Your task to perform on an android device: Open the web browser Image 0: 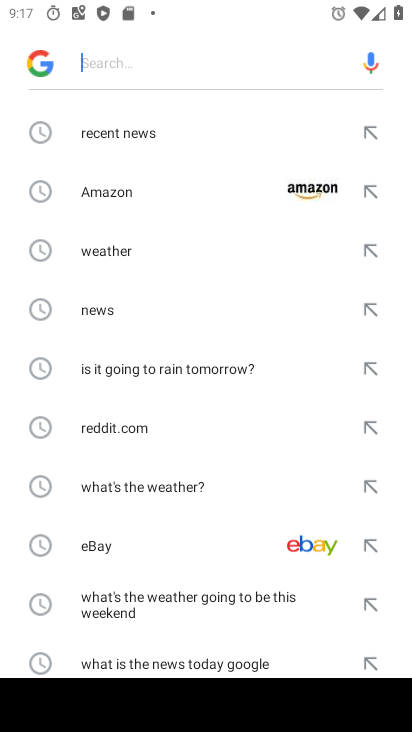
Step 0: press home button
Your task to perform on an android device: Open the web browser Image 1: 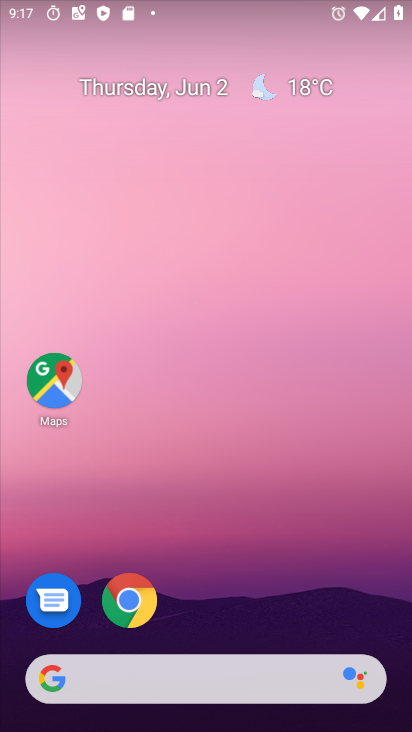
Step 1: drag from (340, 611) to (333, 131)
Your task to perform on an android device: Open the web browser Image 2: 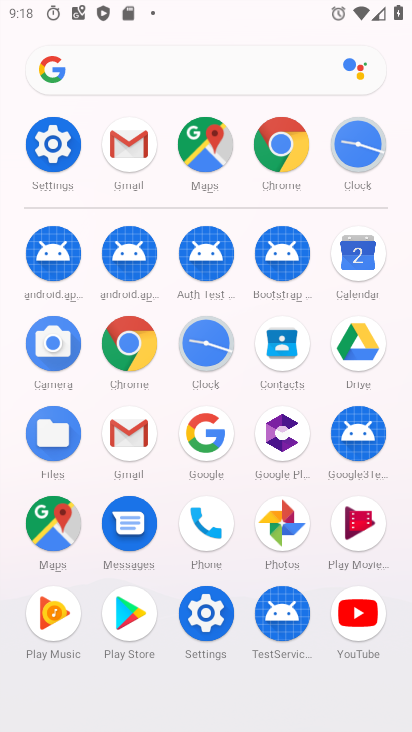
Step 2: click (132, 349)
Your task to perform on an android device: Open the web browser Image 3: 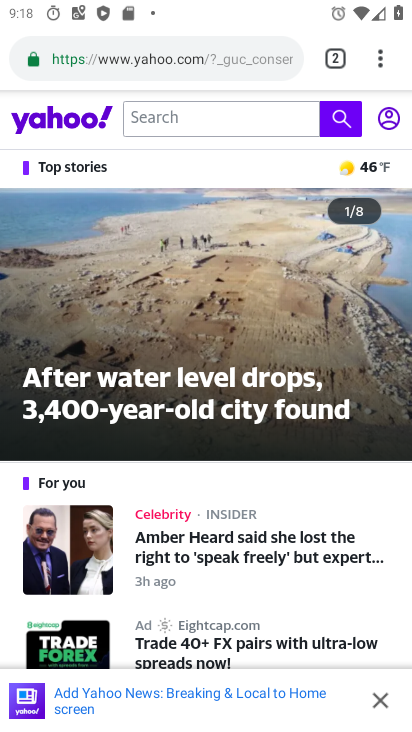
Step 3: task complete